Your task to perform on an android device: open app "Microsoft Excel" (install if not already installed) Image 0: 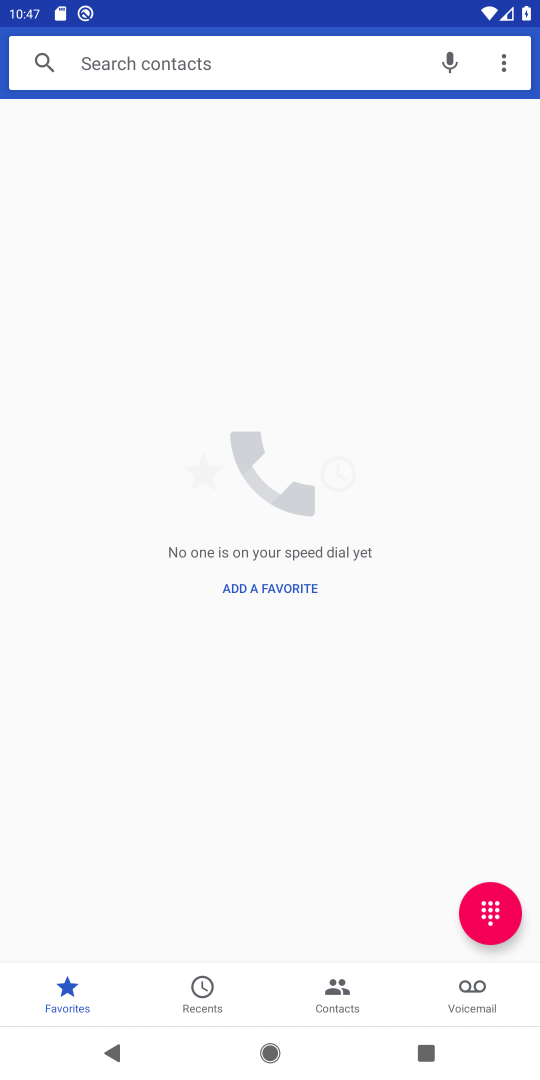
Step 0: task complete